Your task to perform on an android device: Open Amazon Image 0: 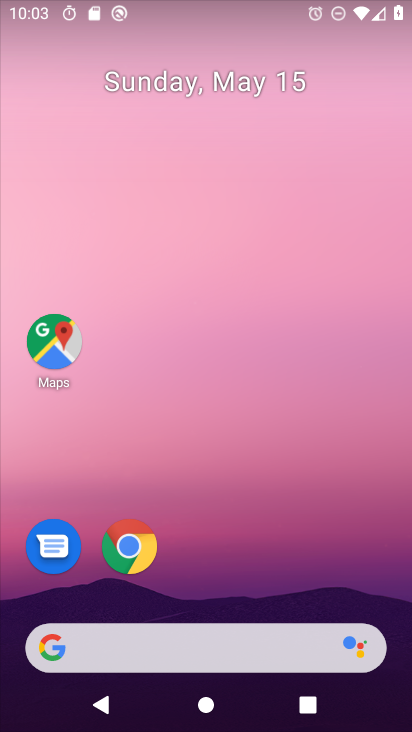
Step 0: click (277, 642)
Your task to perform on an android device: Open Amazon Image 1: 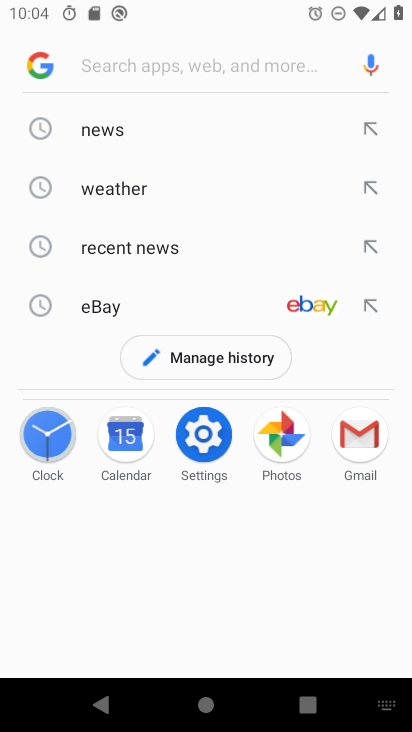
Step 1: type "Amazon"
Your task to perform on an android device: Open Amazon Image 2: 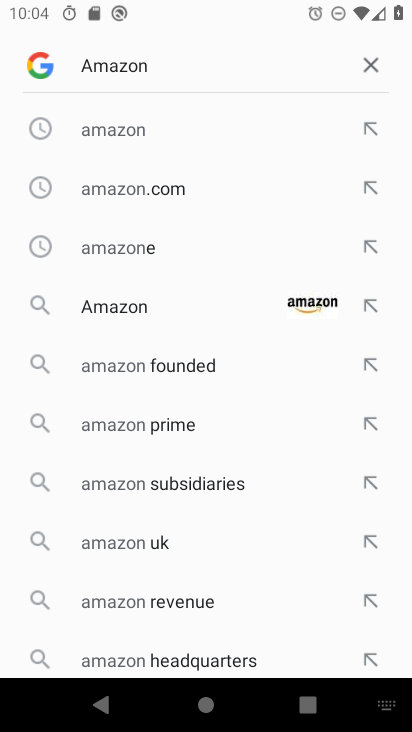
Step 2: click (126, 301)
Your task to perform on an android device: Open Amazon Image 3: 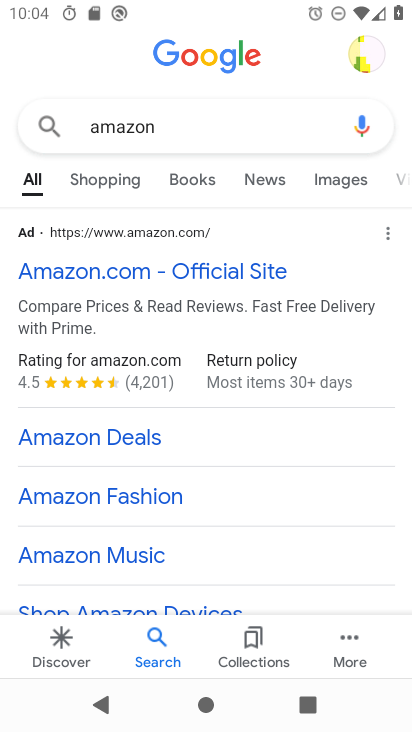
Step 3: click (85, 272)
Your task to perform on an android device: Open Amazon Image 4: 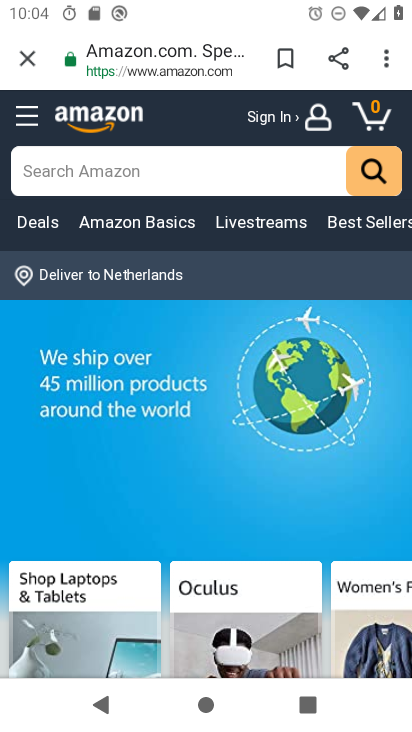
Step 4: task complete